Your task to perform on an android device: What's the weather today? Image 0: 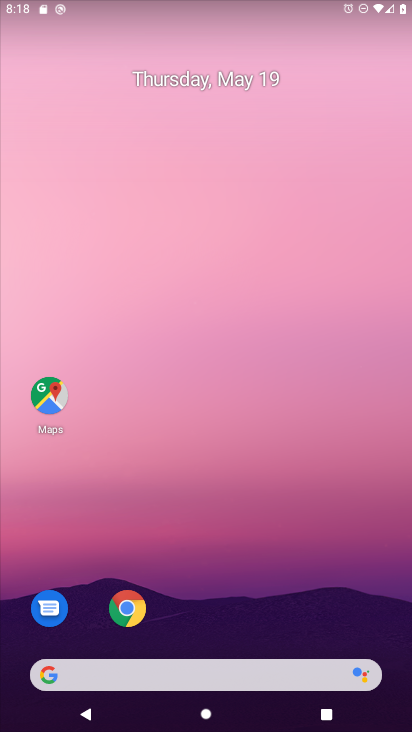
Step 0: drag from (399, 688) to (352, 161)
Your task to perform on an android device: What's the weather today? Image 1: 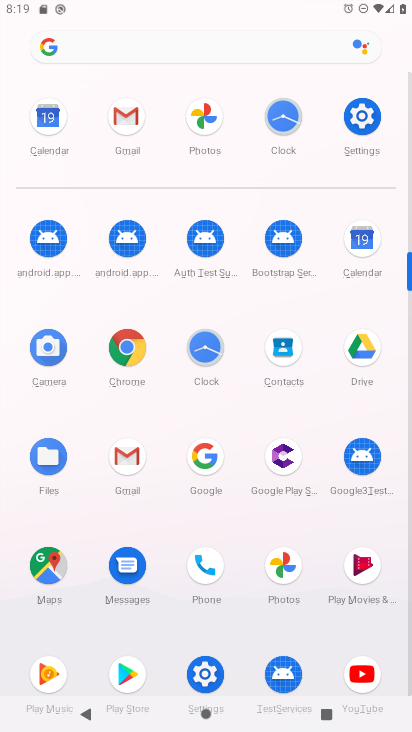
Step 1: click (200, 457)
Your task to perform on an android device: What's the weather today? Image 2: 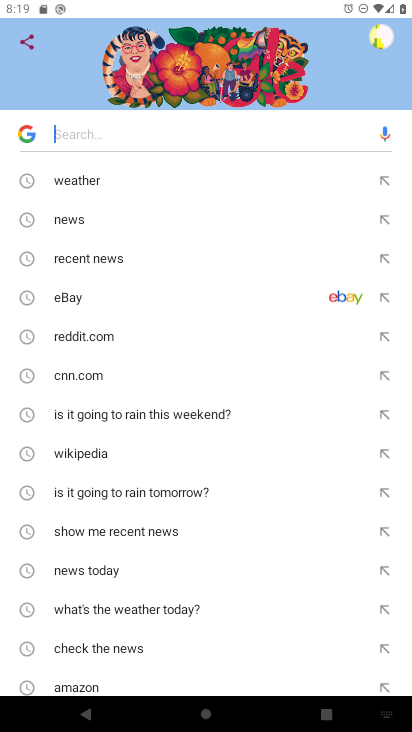
Step 2: click (83, 178)
Your task to perform on an android device: What's the weather today? Image 3: 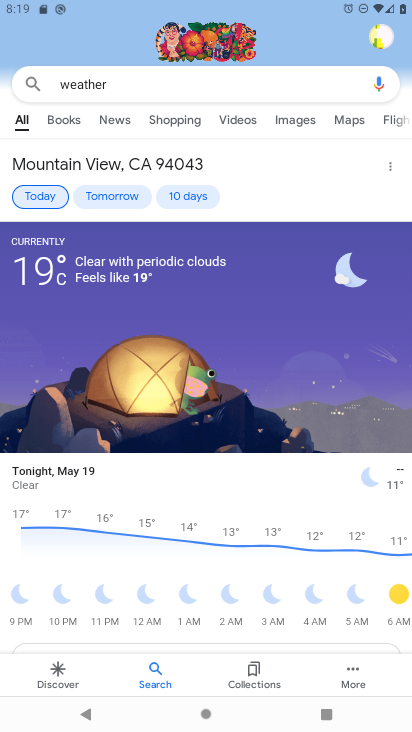
Step 3: click (52, 198)
Your task to perform on an android device: What's the weather today? Image 4: 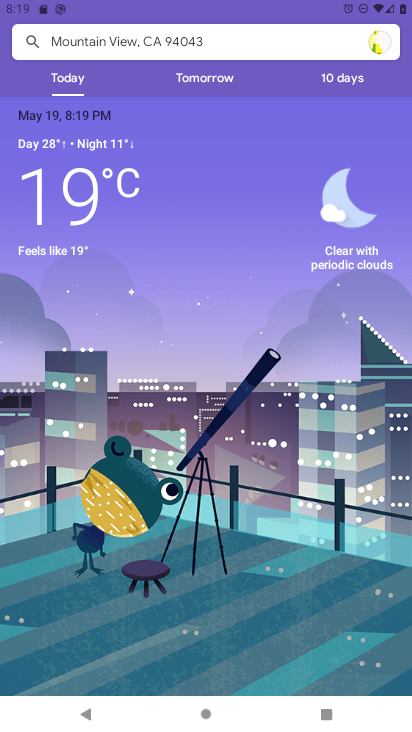
Step 4: task complete